Your task to perform on an android device: see sites visited before in the chrome app Image 0: 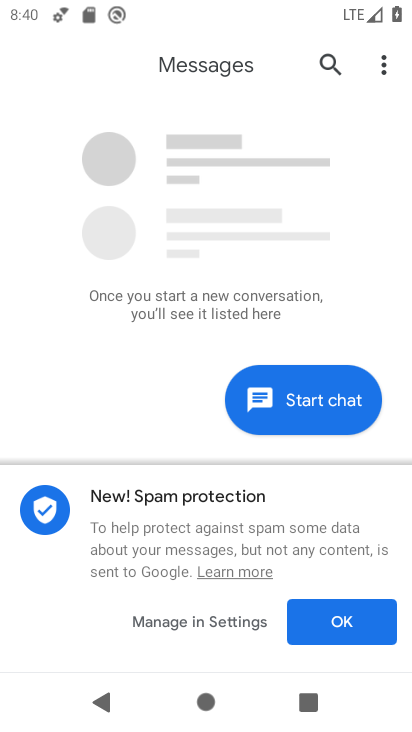
Step 0: press home button
Your task to perform on an android device: see sites visited before in the chrome app Image 1: 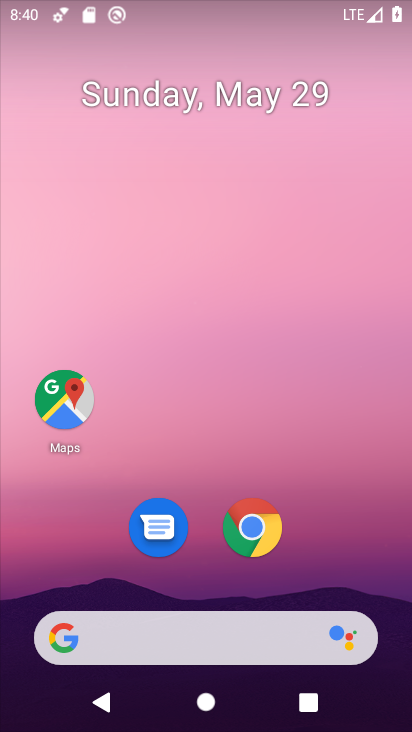
Step 1: click (250, 520)
Your task to perform on an android device: see sites visited before in the chrome app Image 2: 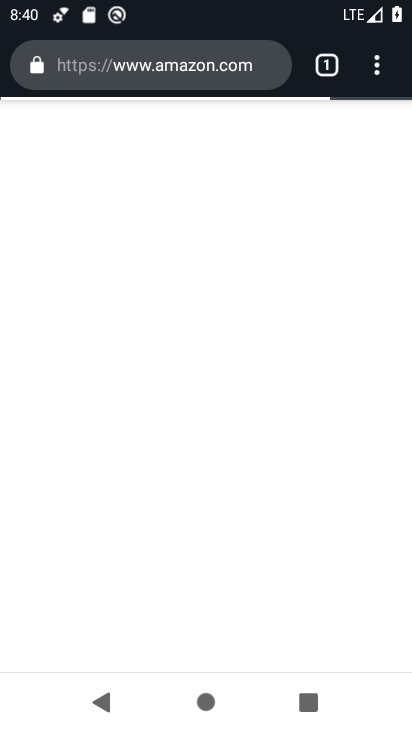
Step 2: click (377, 66)
Your task to perform on an android device: see sites visited before in the chrome app Image 3: 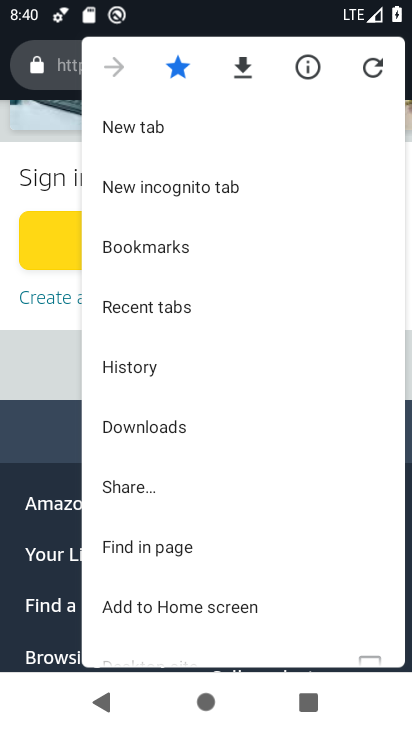
Step 3: click (167, 364)
Your task to perform on an android device: see sites visited before in the chrome app Image 4: 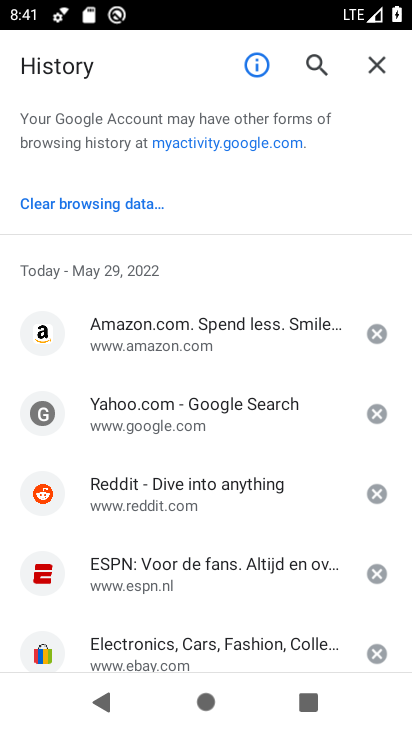
Step 4: task complete